Your task to perform on an android device: What is the recent news? Image 0: 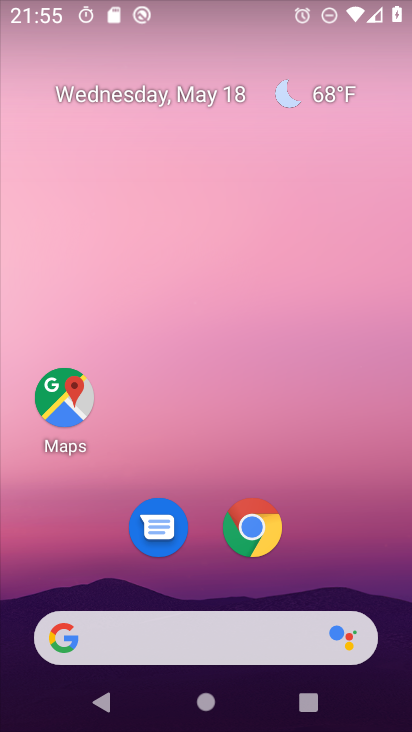
Step 0: click (190, 277)
Your task to perform on an android device: What is the recent news? Image 1: 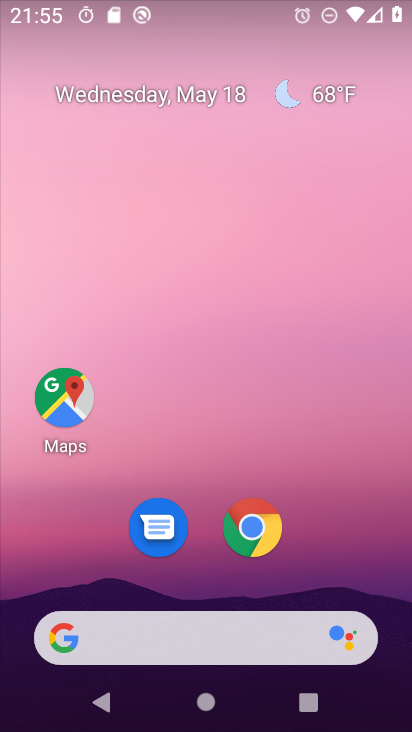
Step 1: task complete